Your task to perform on an android device: choose inbox layout in the gmail app Image 0: 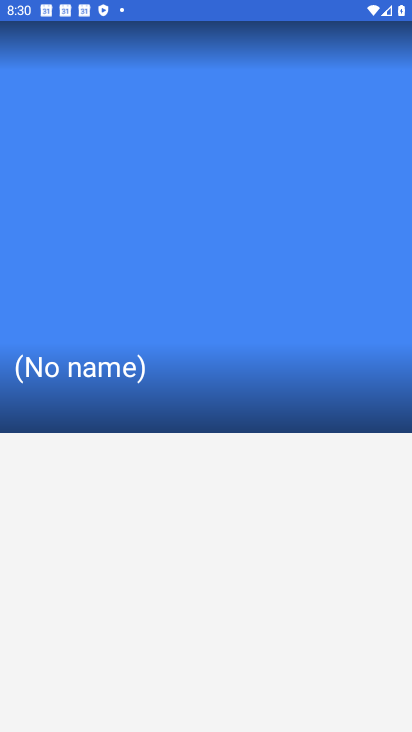
Step 0: drag from (213, 724) to (346, 67)
Your task to perform on an android device: choose inbox layout in the gmail app Image 1: 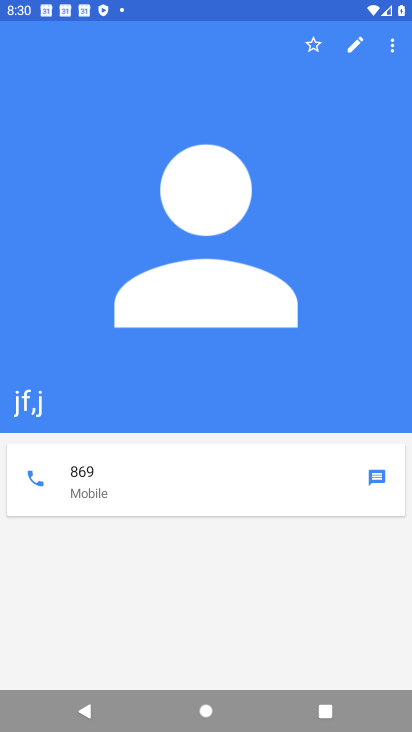
Step 1: press home button
Your task to perform on an android device: choose inbox layout in the gmail app Image 2: 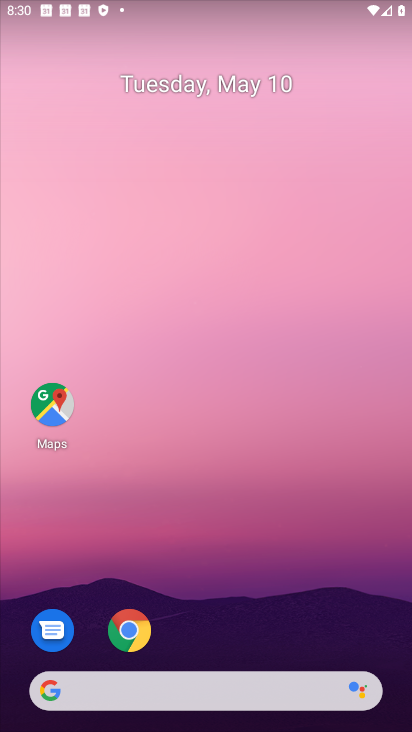
Step 2: drag from (215, 661) to (289, 146)
Your task to perform on an android device: choose inbox layout in the gmail app Image 3: 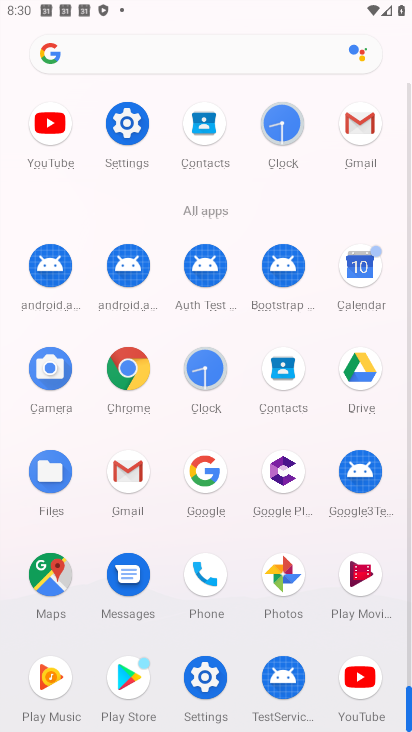
Step 3: click (349, 123)
Your task to perform on an android device: choose inbox layout in the gmail app Image 4: 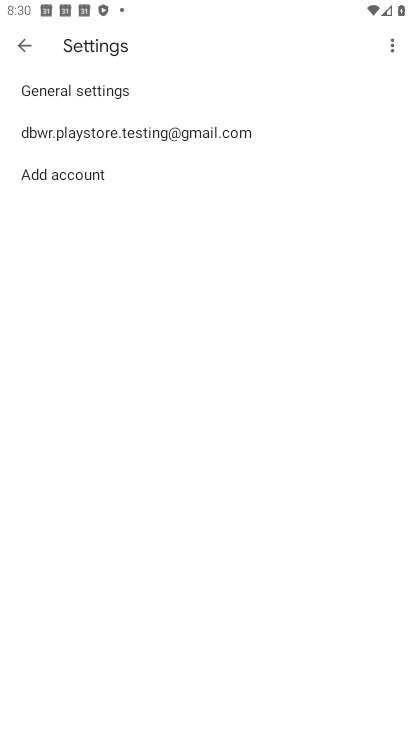
Step 4: click (92, 139)
Your task to perform on an android device: choose inbox layout in the gmail app Image 5: 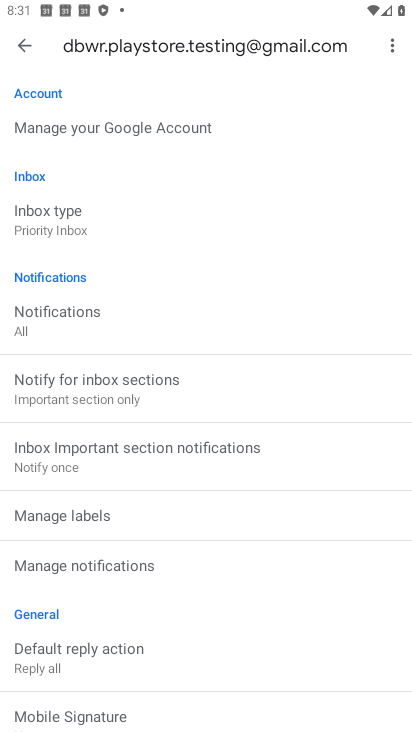
Step 5: click (61, 211)
Your task to perform on an android device: choose inbox layout in the gmail app Image 6: 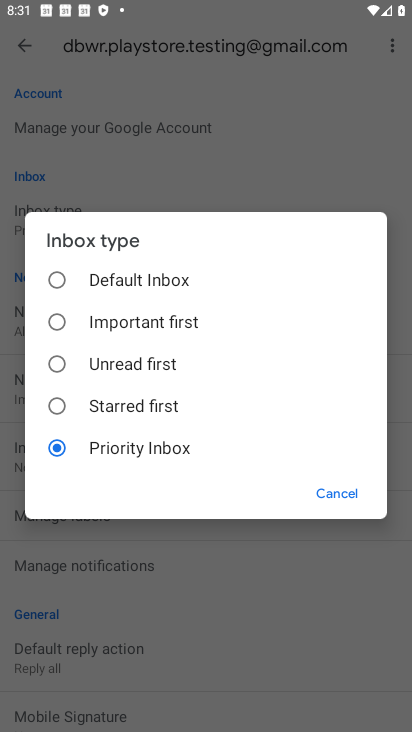
Step 6: click (124, 321)
Your task to perform on an android device: choose inbox layout in the gmail app Image 7: 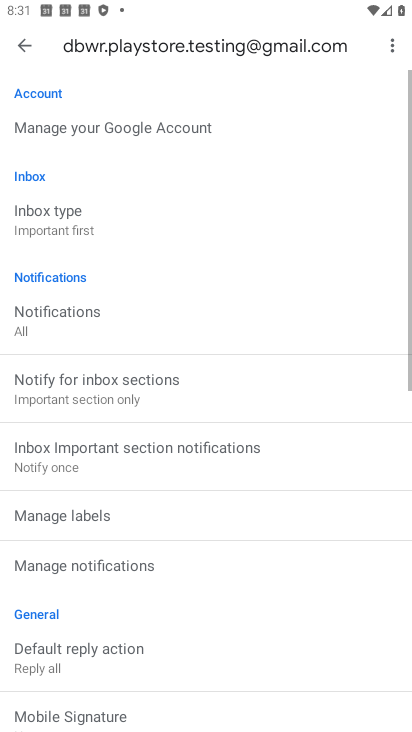
Step 7: task complete